Your task to perform on an android device: open app "Spotify" (install if not already installed) and go to login screen Image 0: 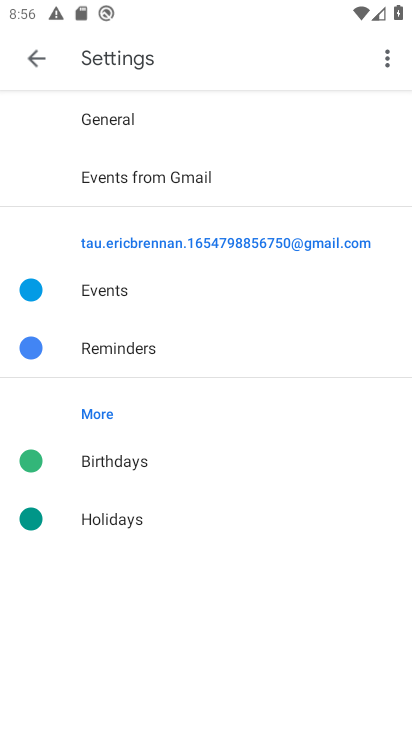
Step 0: press home button
Your task to perform on an android device: open app "Spotify" (install if not already installed) and go to login screen Image 1: 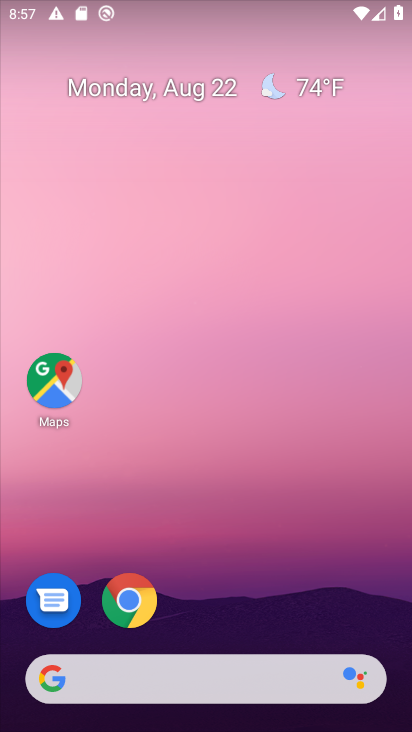
Step 1: drag from (206, 590) to (200, 10)
Your task to perform on an android device: open app "Spotify" (install if not already installed) and go to login screen Image 2: 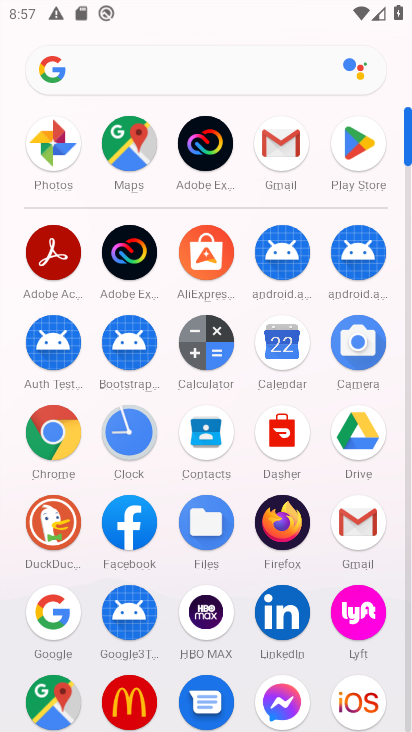
Step 2: click (352, 150)
Your task to perform on an android device: open app "Spotify" (install if not already installed) and go to login screen Image 3: 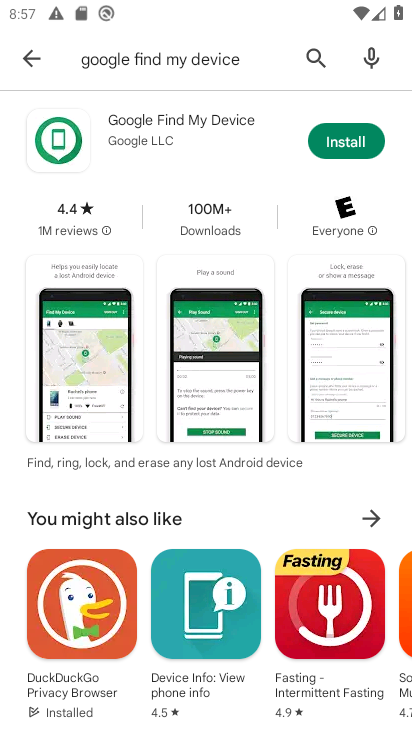
Step 3: click (311, 61)
Your task to perform on an android device: open app "Spotify" (install if not already installed) and go to login screen Image 4: 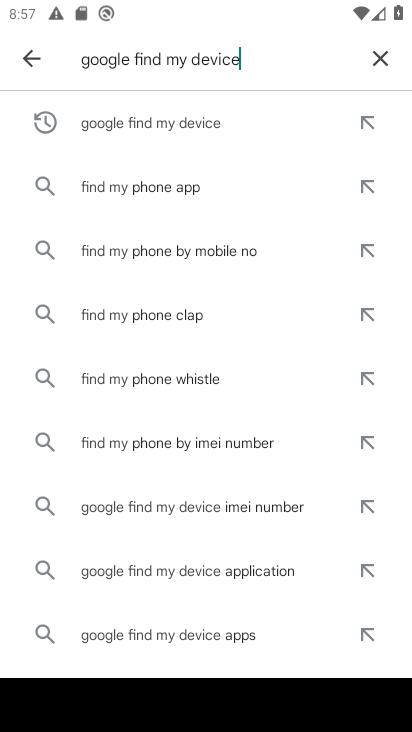
Step 4: click (379, 51)
Your task to perform on an android device: open app "Spotify" (install if not already installed) and go to login screen Image 5: 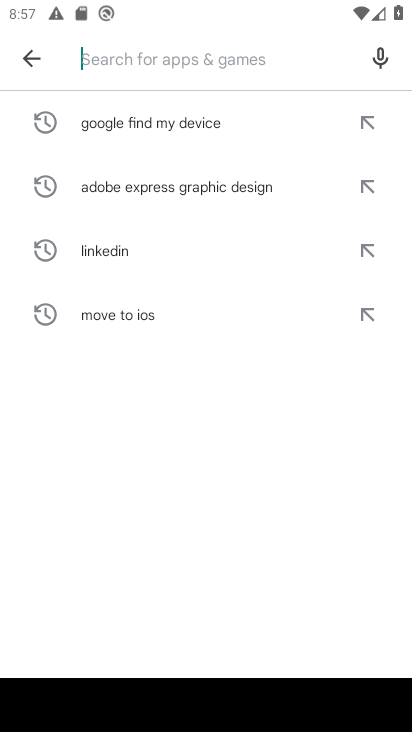
Step 5: type "Spotify"
Your task to perform on an android device: open app "Spotify" (install if not already installed) and go to login screen Image 6: 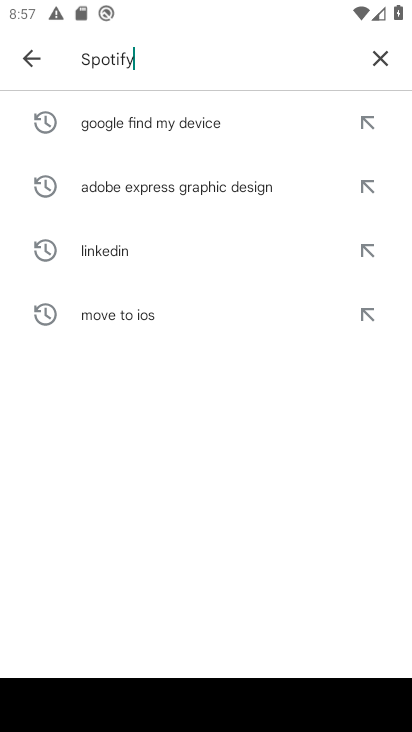
Step 6: type ""
Your task to perform on an android device: open app "Spotify" (install if not already installed) and go to login screen Image 7: 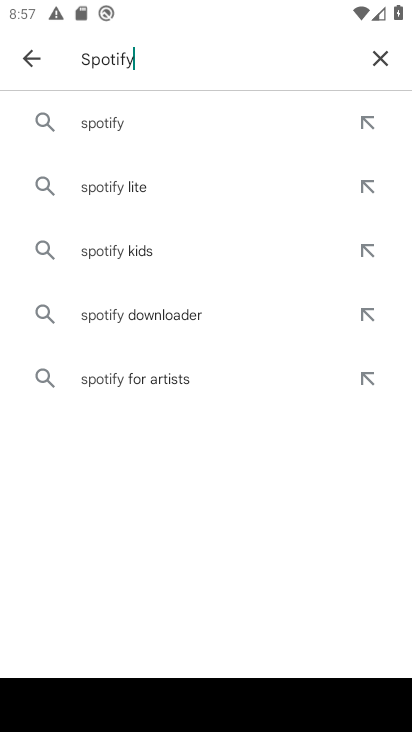
Step 7: click (169, 117)
Your task to perform on an android device: open app "Spotify" (install if not already installed) and go to login screen Image 8: 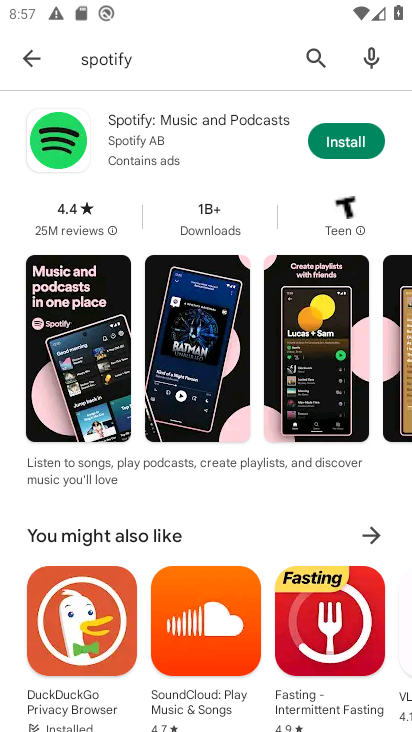
Step 8: click (344, 141)
Your task to perform on an android device: open app "Spotify" (install if not already installed) and go to login screen Image 9: 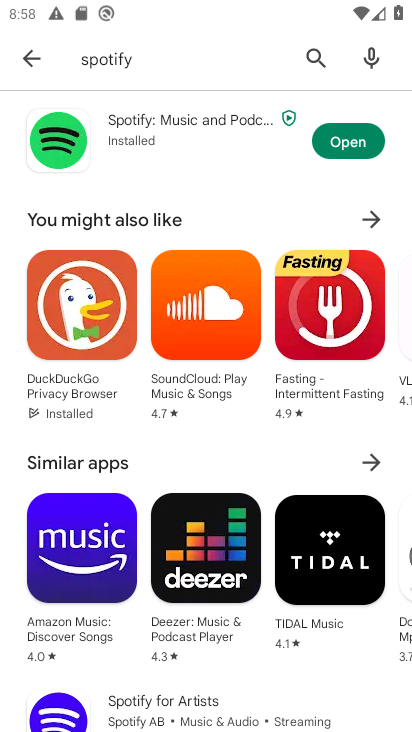
Step 9: click (344, 141)
Your task to perform on an android device: open app "Spotify" (install if not already installed) and go to login screen Image 10: 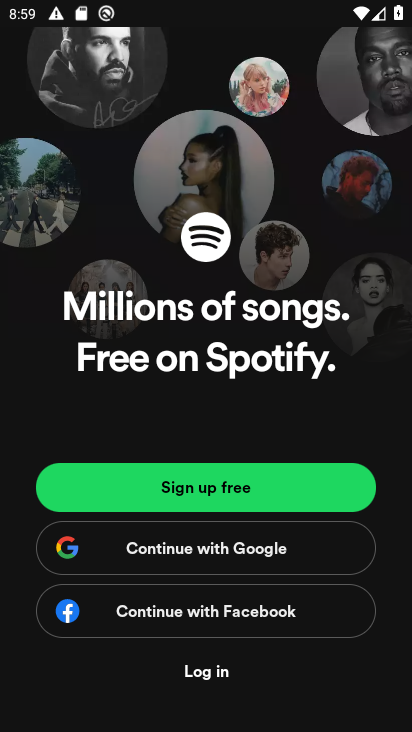
Step 10: task complete